Your task to perform on an android device: Do I have any events this weekend? Image 0: 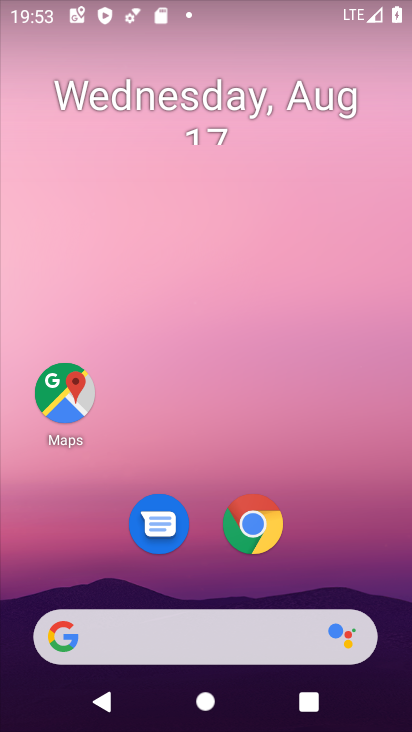
Step 0: drag from (312, 420) to (318, 10)
Your task to perform on an android device: Do I have any events this weekend? Image 1: 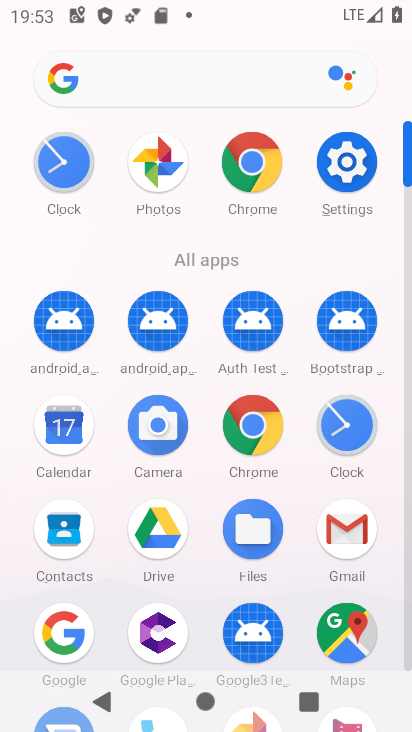
Step 1: click (67, 430)
Your task to perform on an android device: Do I have any events this weekend? Image 2: 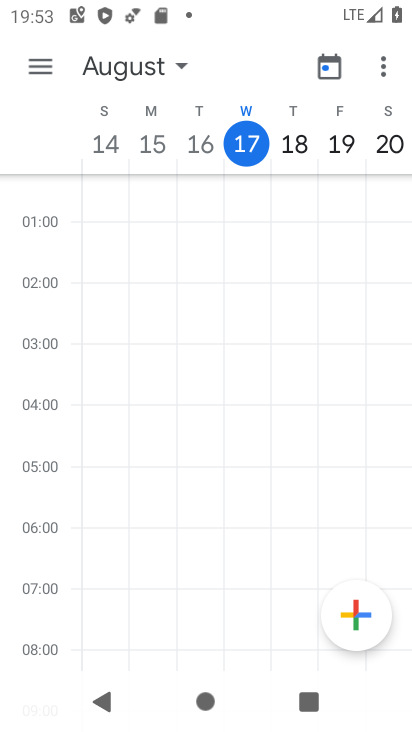
Step 2: click (263, 216)
Your task to perform on an android device: Do I have any events this weekend? Image 3: 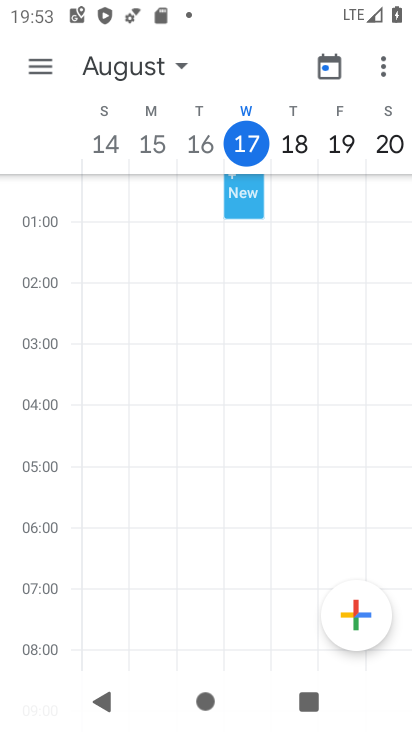
Step 3: task complete